Your task to perform on an android device: Open battery settings Image 0: 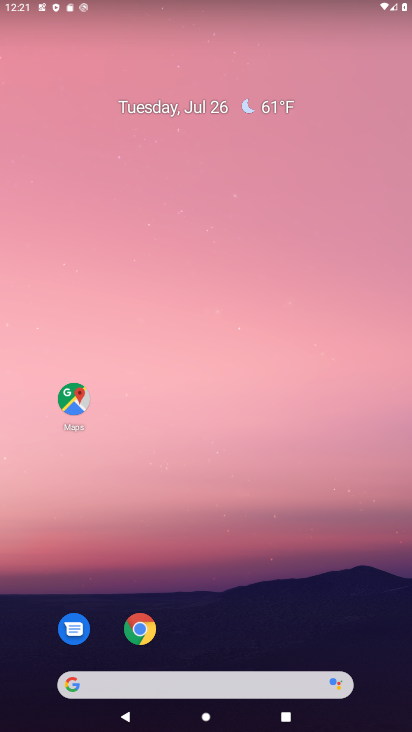
Step 0: drag from (213, 593) to (228, 173)
Your task to perform on an android device: Open battery settings Image 1: 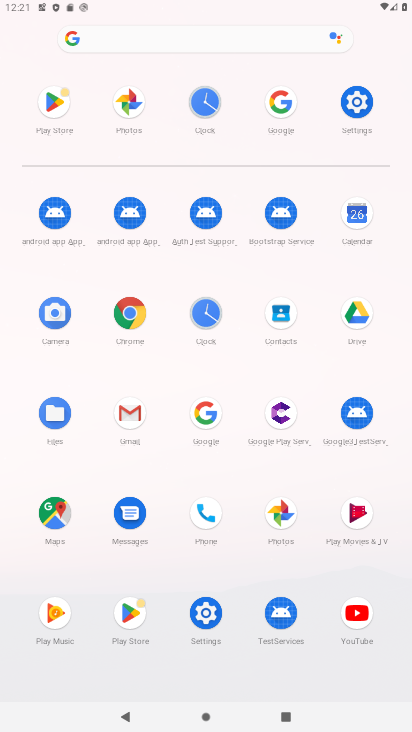
Step 1: click (342, 98)
Your task to perform on an android device: Open battery settings Image 2: 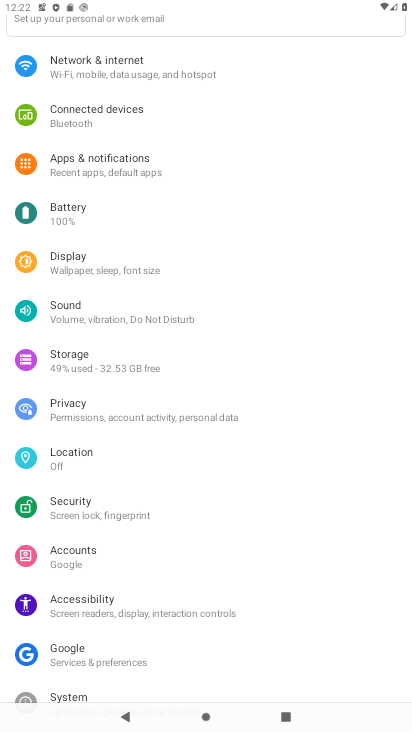
Step 2: click (95, 219)
Your task to perform on an android device: Open battery settings Image 3: 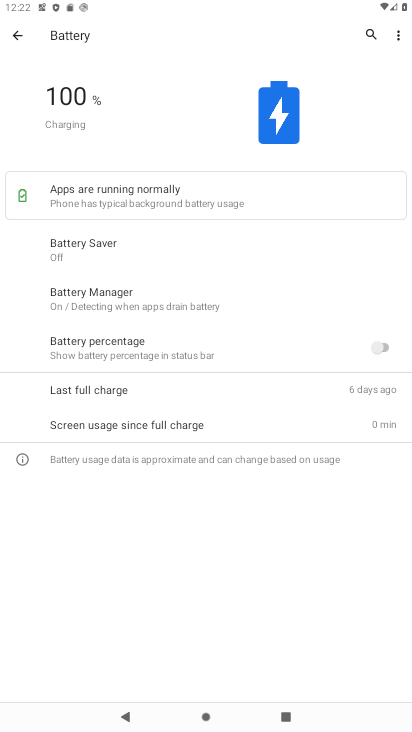
Step 3: task complete